Your task to perform on an android device: turn on location history Image 0: 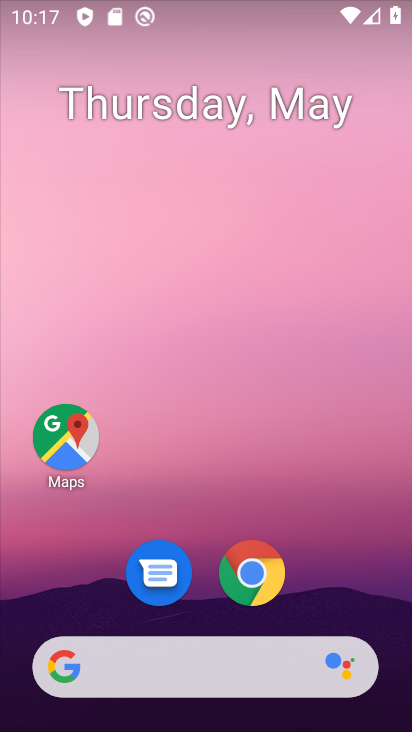
Step 0: drag from (350, 595) to (305, 275)
Your task to perform on an android device: turn on location history Image 1: 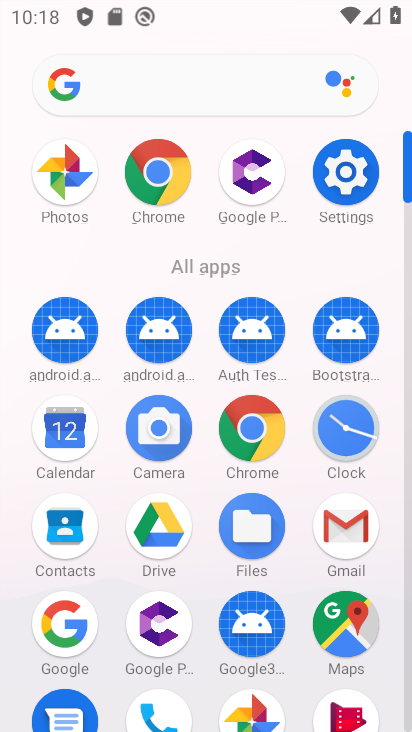
Step 1: click (351, 176)
Your task to perform on an android device: turn on location history Image 2: 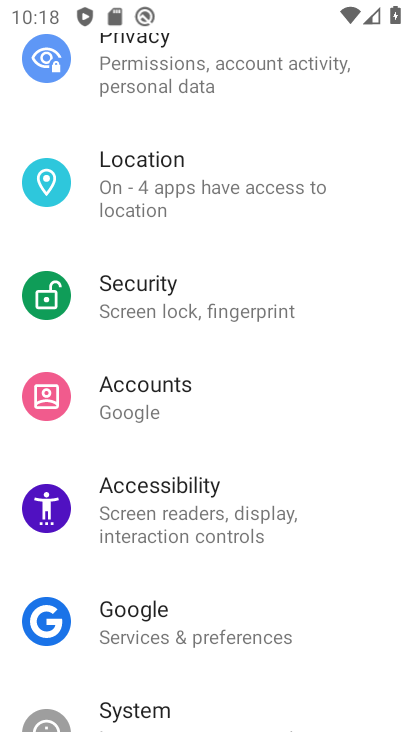
Step 2: drag from (272, 178) to (232, 335)
Your task to perform on an android device: turn on location history Image 3: 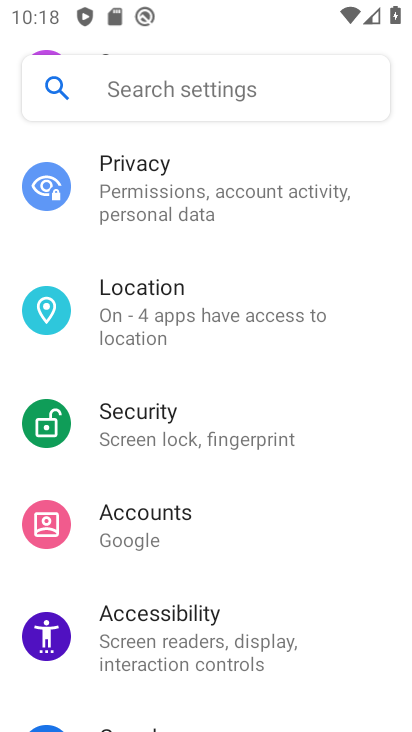
Step 3: click (232, 312)
Your task to perform on an android device: turn on location history Image 4: 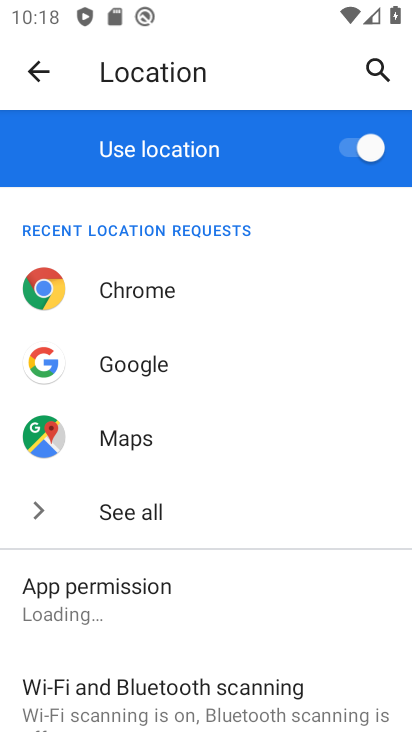
Step 4: drag from (223, 644) to (223, 331)
Your task to perform on an android device: turn on location history Image 5: 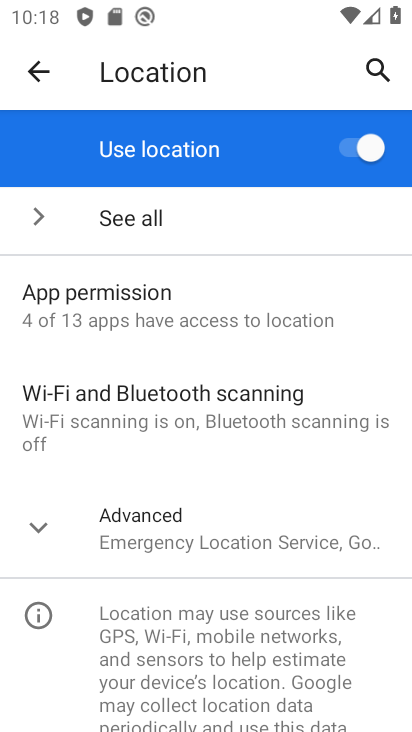
Step 5: click (206, 535)
Your task to perform on an android device: turn on location history Image 6: 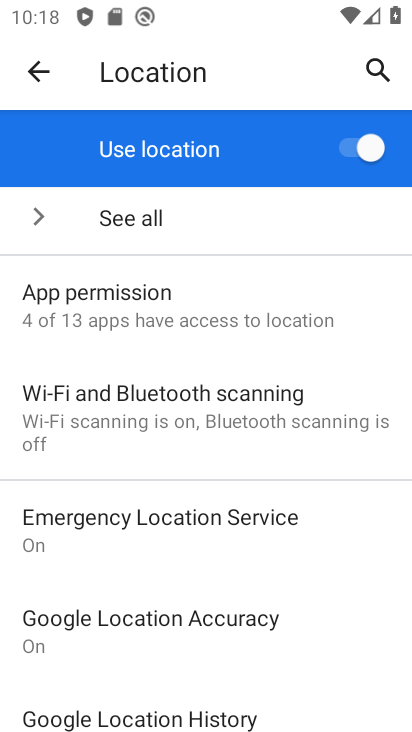
Step 6: drag from (202, 663) to (240, 463)
Your task to perform on an android device: turn on location history Image 7: 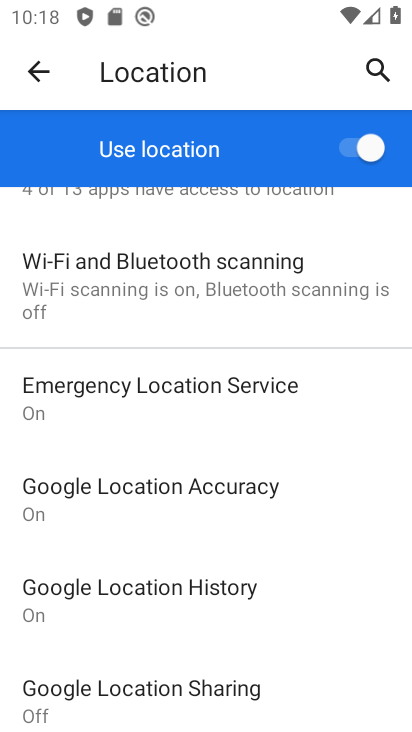
Step 7: click (158, 593)
Your task to perform on an android device: turn on location history Image 8: 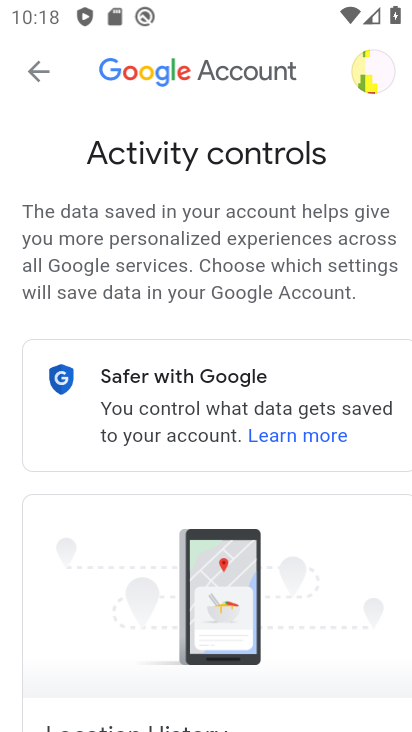
Step 8: task complete